Your task to perform on an android device: choose inbox layout in the gmail app Image 0: 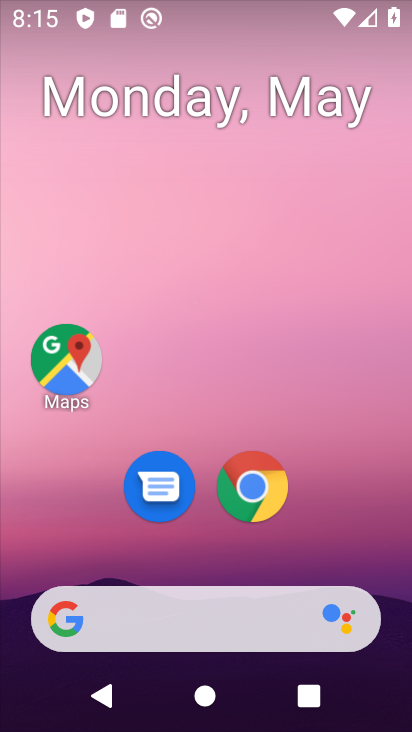
Step 0: drag from (182, 547) to (93, 66)
Your task to perform on an android device: choose inbox layout in the gmail app Image 1: 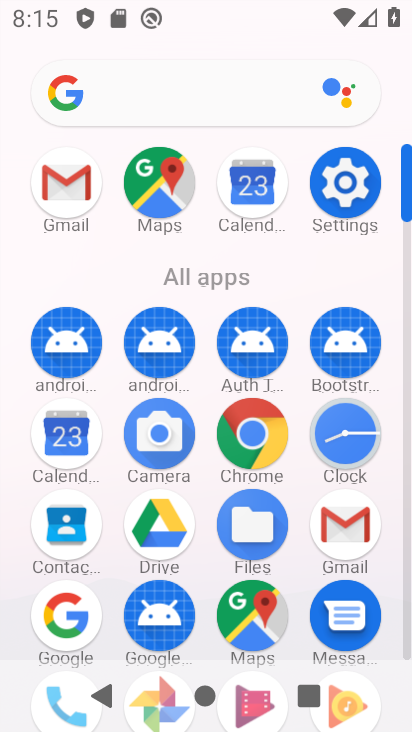
Step 1: click (68, 191)
Your task to perform on an android device: choose inbox layout in the gmail app Image 2: 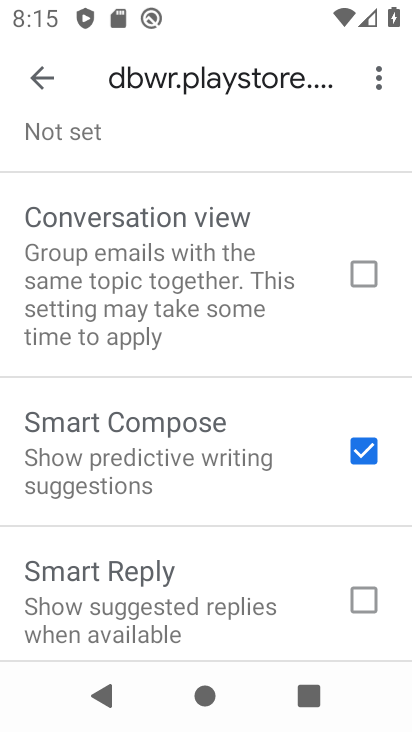
Step 2: drag from (113, 263) to (145, 675)
Your task to perform on an android device: choose inbox layout in the gmail app Image 3: 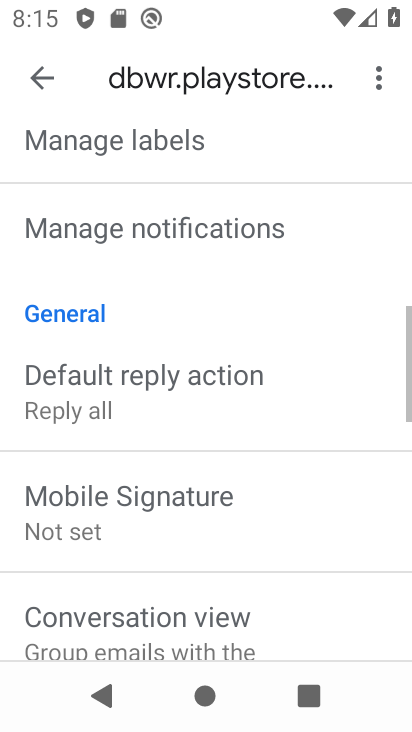
Step 3: drag from (137, 269) to (157, 726)
Your task to perform on an android device: choose inbox layout in the gmail app Image 4: 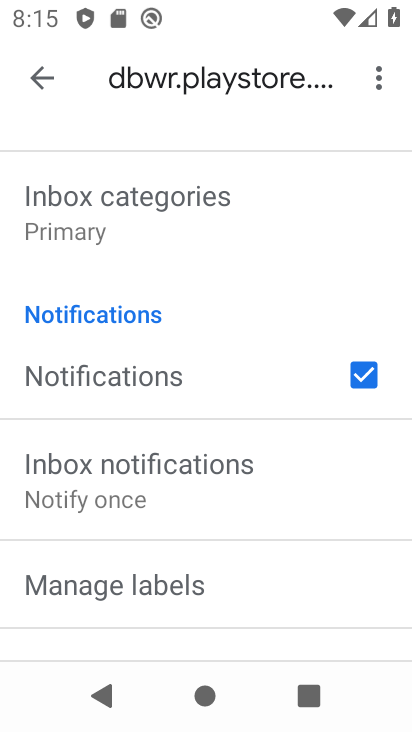
Step 4: drag from (117, 287) to (77, 654)
Your task to perform on an android device: choose inbox layout in the gmail app Image 5: 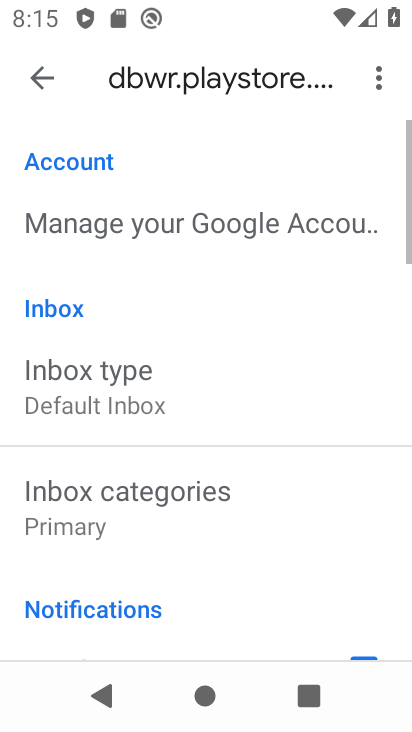
Step 5: click (94, 376)
Your task to perform on an android device: choose inbox layout in the gmail app Image 6: 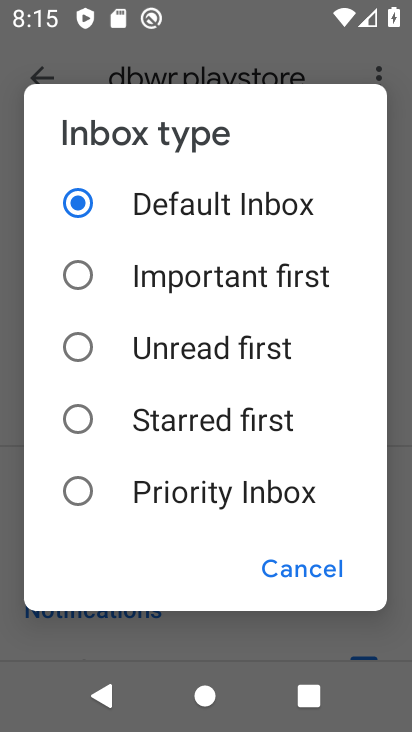
Step 6: click (102, 524)
Your task to perform on an android device: choose inbox layout in the gmail app Image 7: 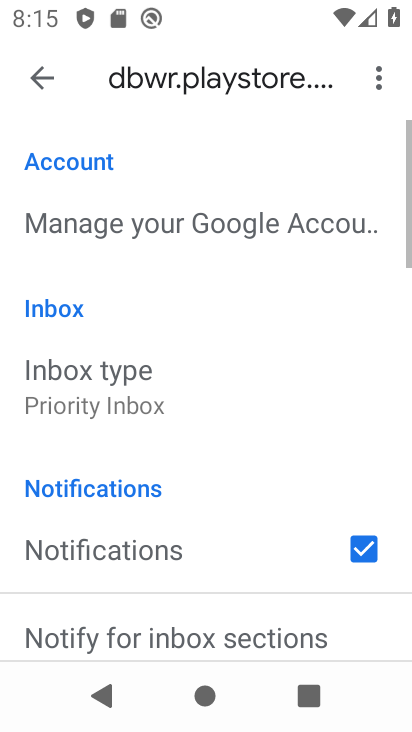
Step 7: task complete